Your task to perform on an android device: Open settings Image 0: 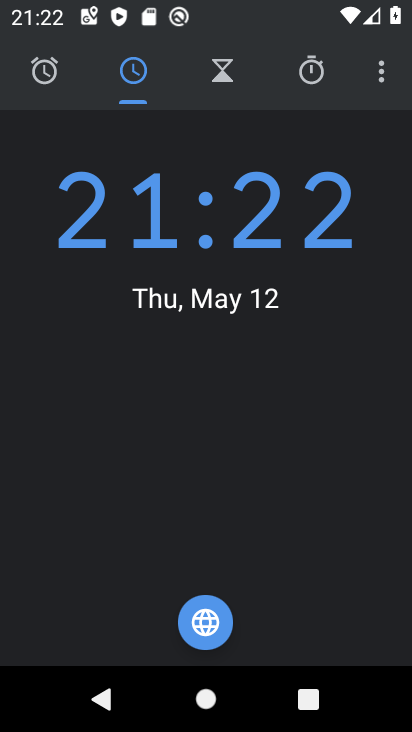
Step 0: drag from (268, 651) to (189, 237)
Your task to perform on an android device: Open settings Image 1: 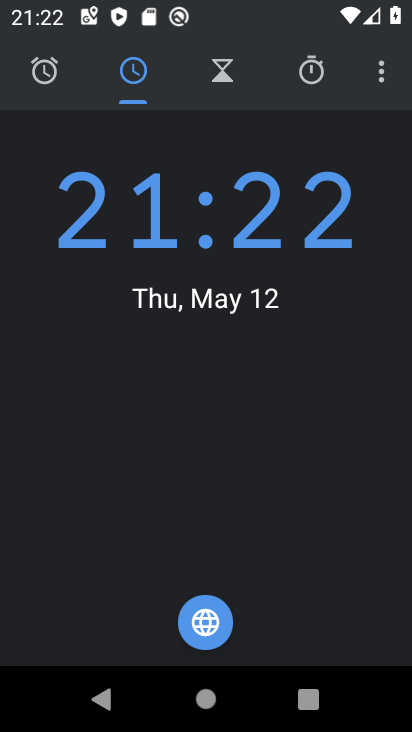
Step 1: press home button
Your task to perform on an android device: Open settings Image 2: 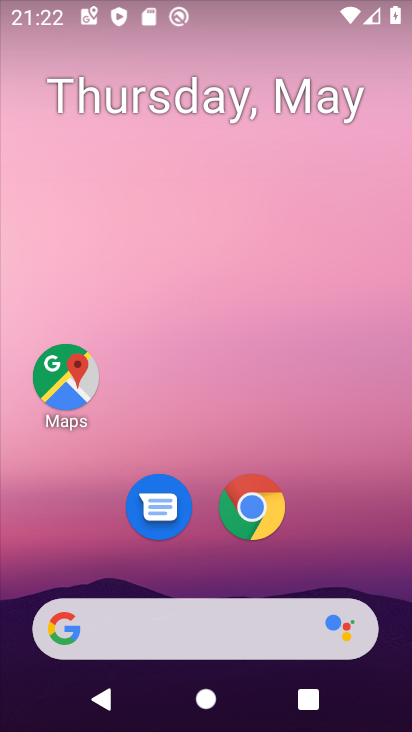
Step 2: drag from (271, 652) to (218, 162)
Your task to perform on an android device: Open settings Image 3: 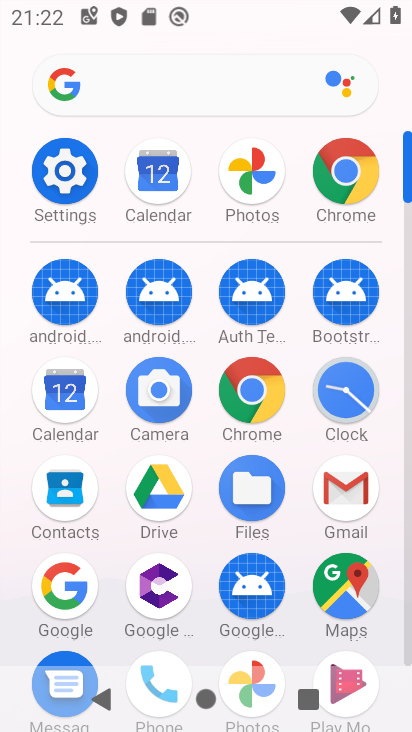
Step 3: click (88, 178)
Your task to perform on an android device: Open settings Image 4: 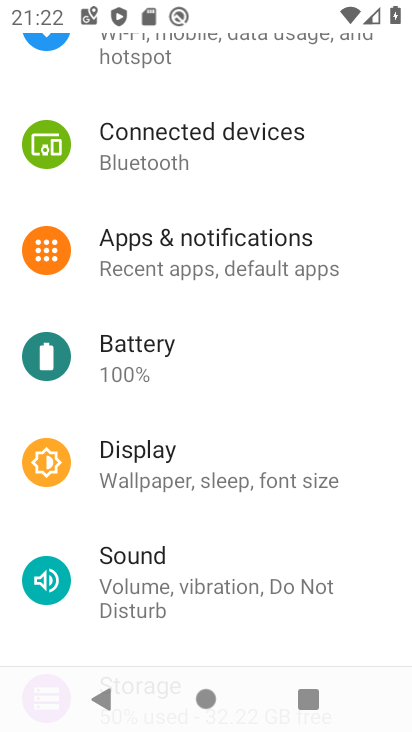
Step 4: task complete